Your task to perform on an android device: Search for bose soundlink mini on target.com, select the first entry, add it to the cart, then select checkout. Image 0: 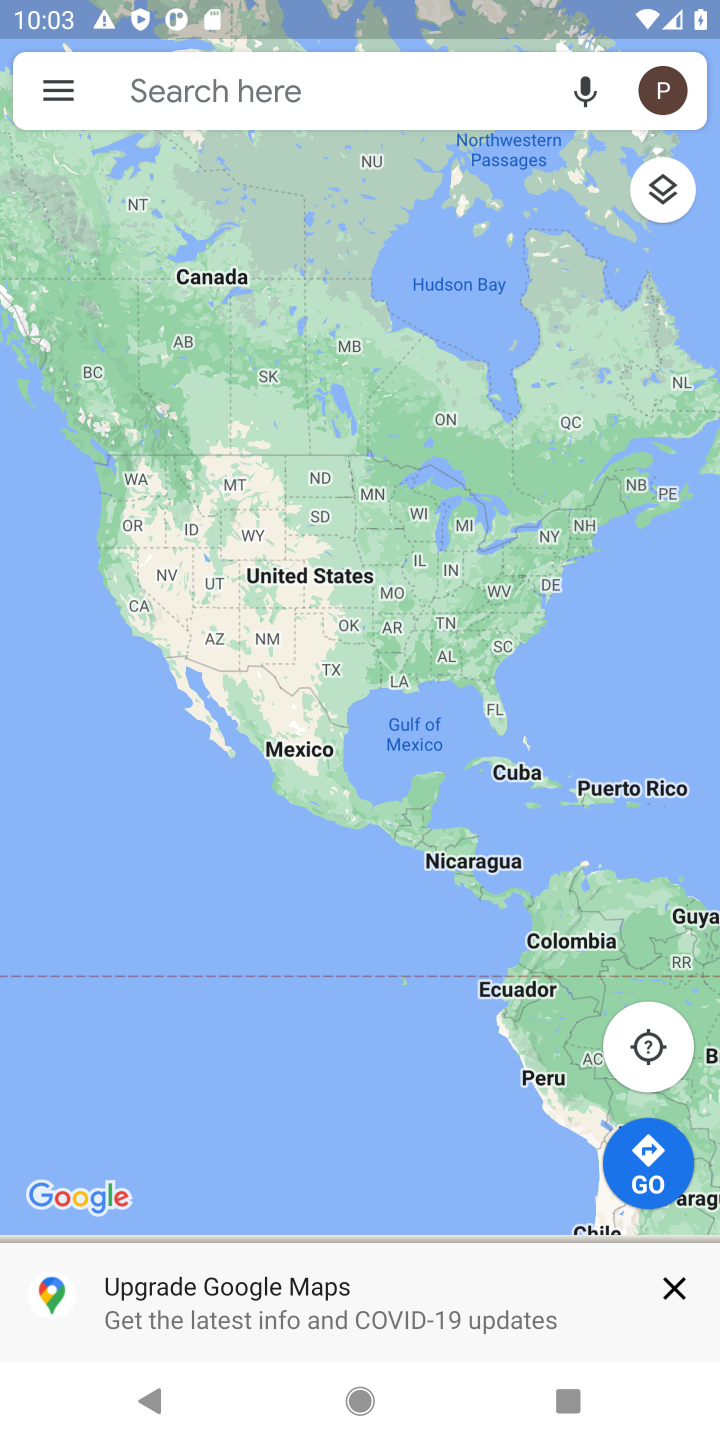
Step 0: press home button
Your task to perform on an android device: Search for bose soundlink mini on target.com, select the first entry, add it to the cart, then select checkout. Image 1: 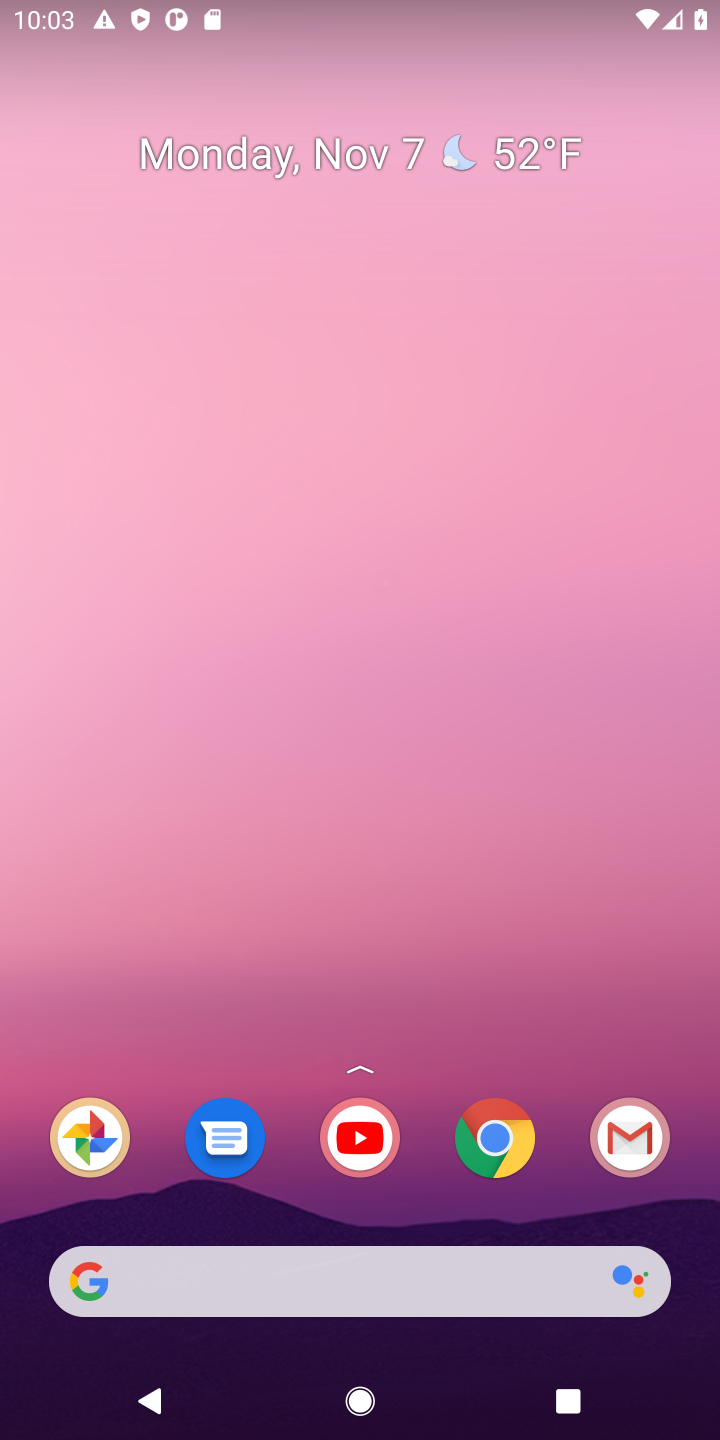
Step 1: drag from (413, 1206) to (443, 143)
Your task to perform on an android device: Search for bose soundlink mini on target.com, select the first entry, add it to the cart, then select checkout. Image 2: 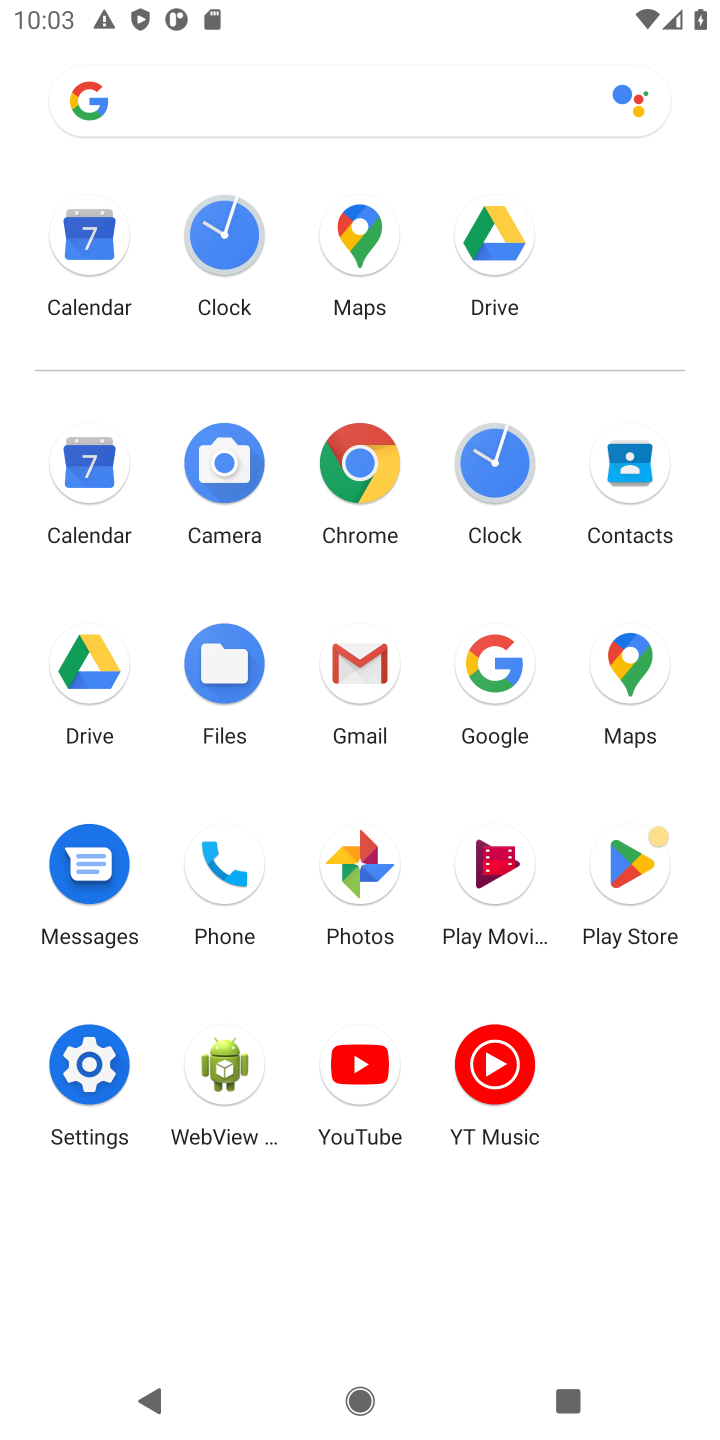
Step 2: click (345, 466)
Your task to perform on an android device: Search for bose soundlink mini on target.com, select the first entry, add it to the cart, then select checkout. Image 3: 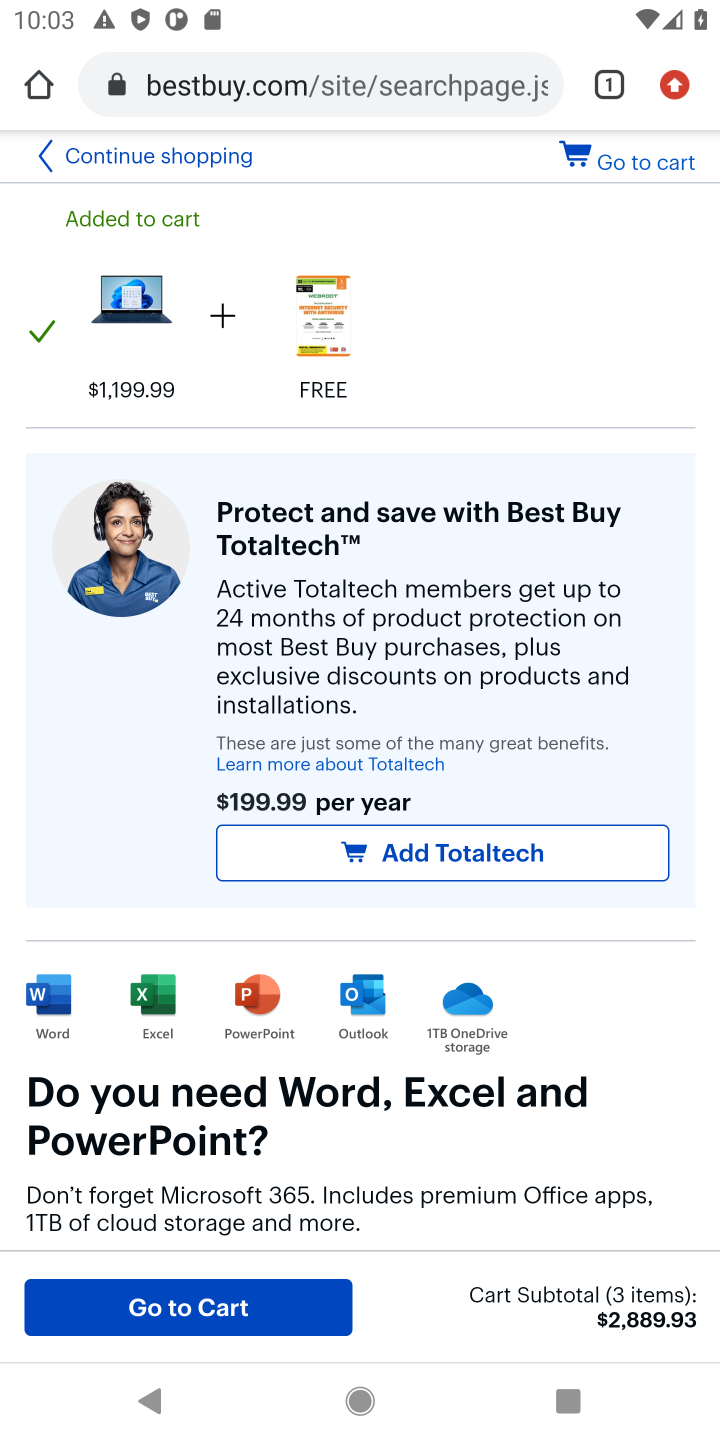
Step 3: click (347, 76)
Your task to perform on an android device: Search for bose soundlink mini on target.com, select the first entry, add it to the cart, then select checkout. Image 4: 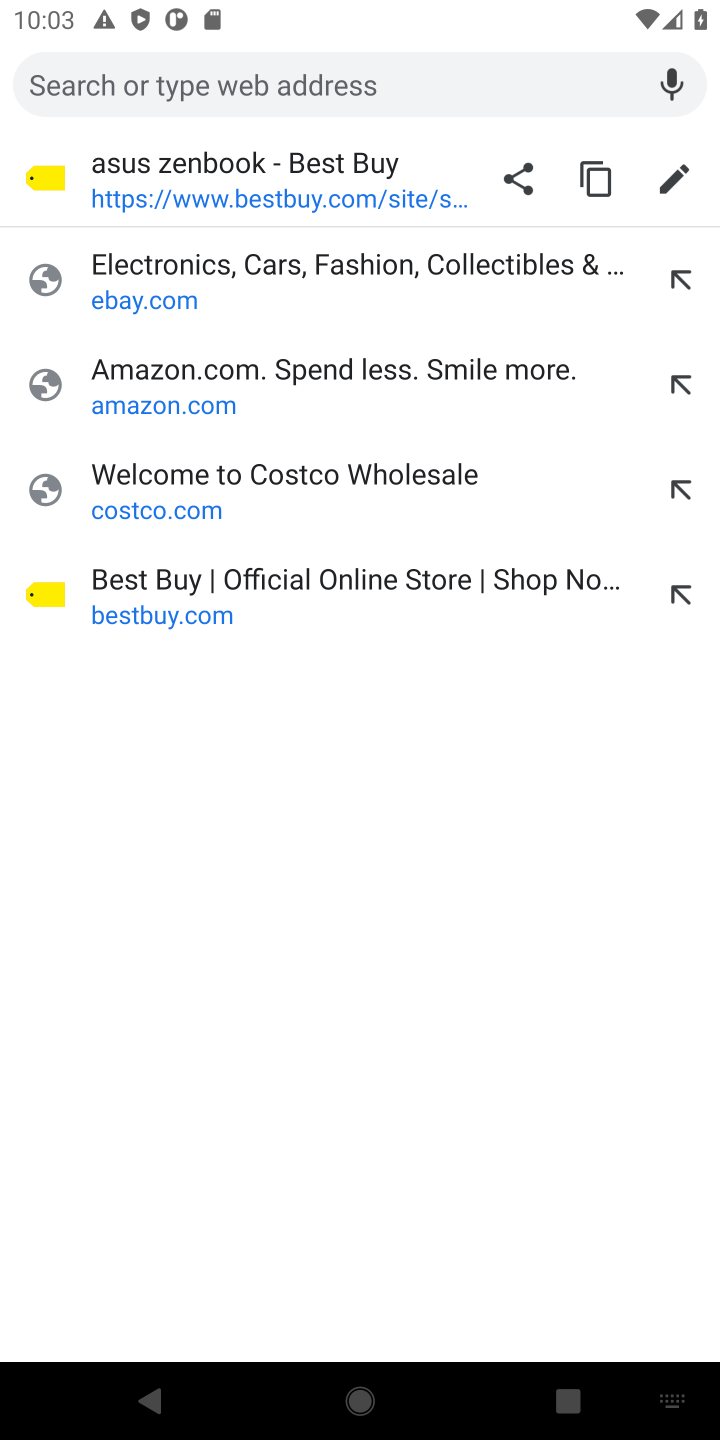
Step 4: type "target.com"
Your task to perform on an android device: Search for bose soundlink mini on target.com, select the first entry, add it to the cart, then select checkout. Image 5: 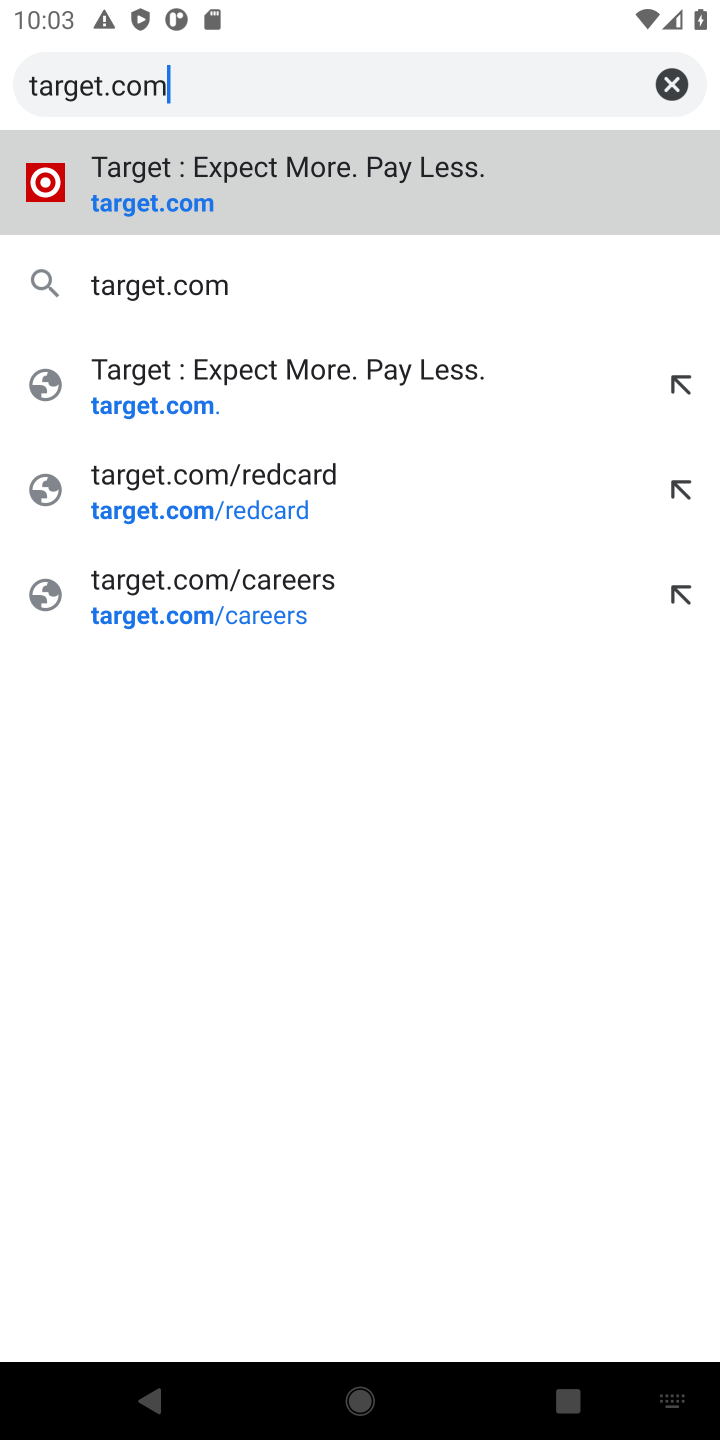
Step 5: press enter
Your task to perform on an android device: Search for bose soundlink mini on target.com, select the first entry, add it to the cart, then select checkout. Image 6: 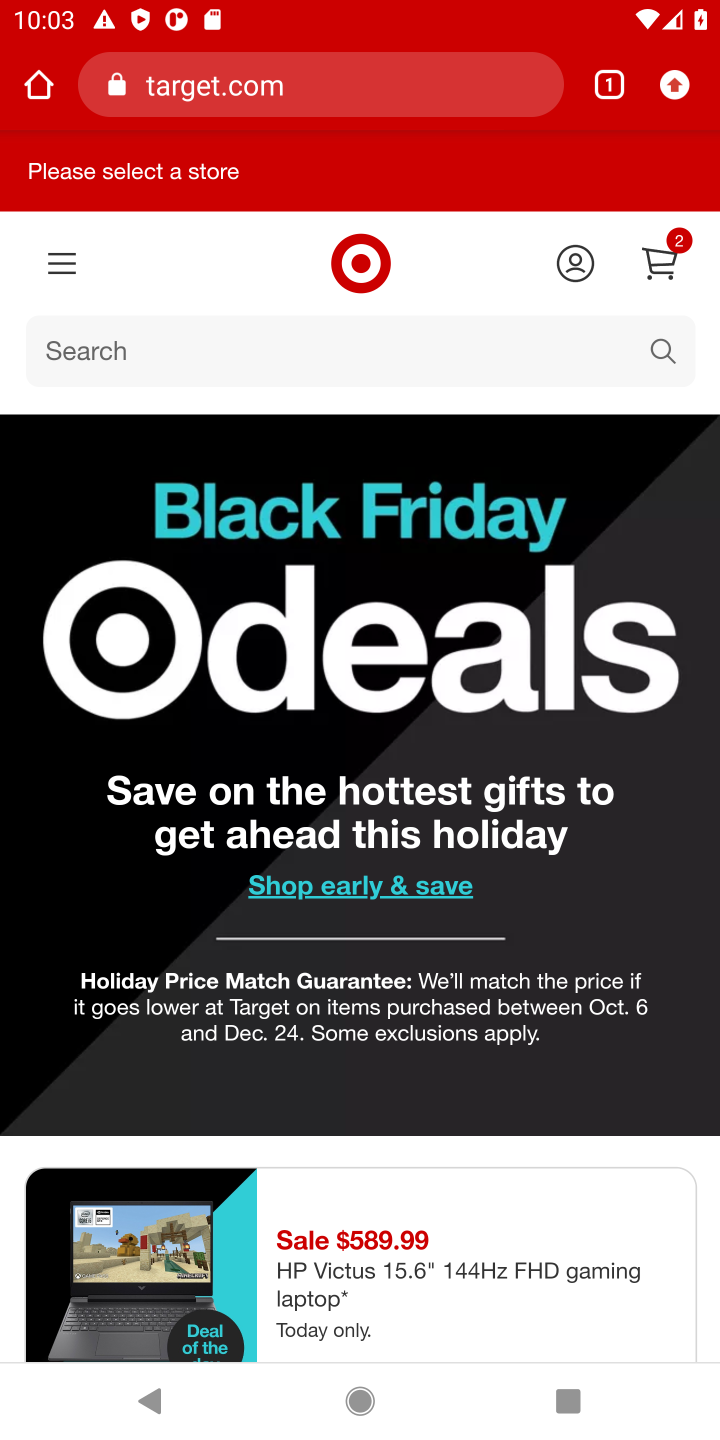
Step 6: click (202, 364)
Your task to perform on an android device: Search for bose soundlink mini on target.com, select the first entry, add it to the cart, then select checkout. Image 7: 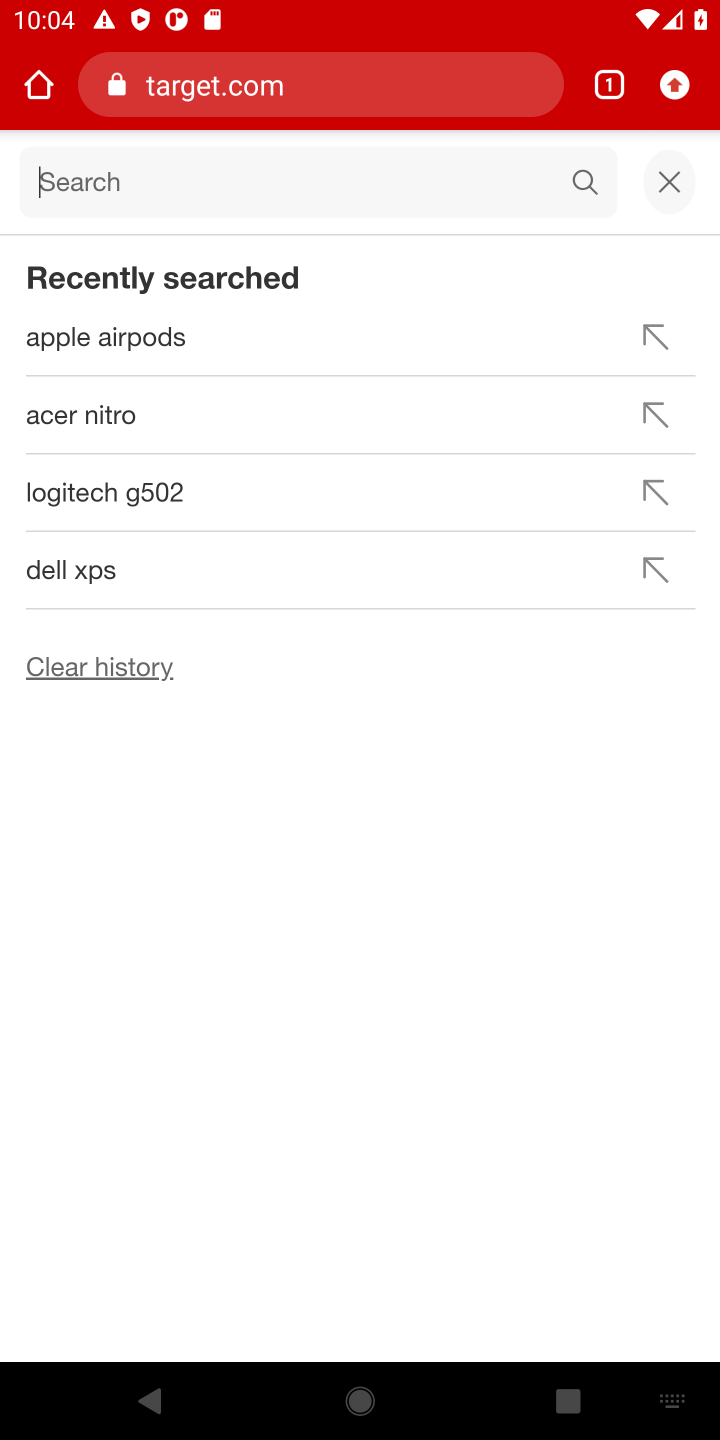
Step 7: type "bose soundlink mini"
Your task to perform on an android device: Search for bose soundlink mini on target.com, select the first entry, add it to the cart, then select checkout. Image 8: 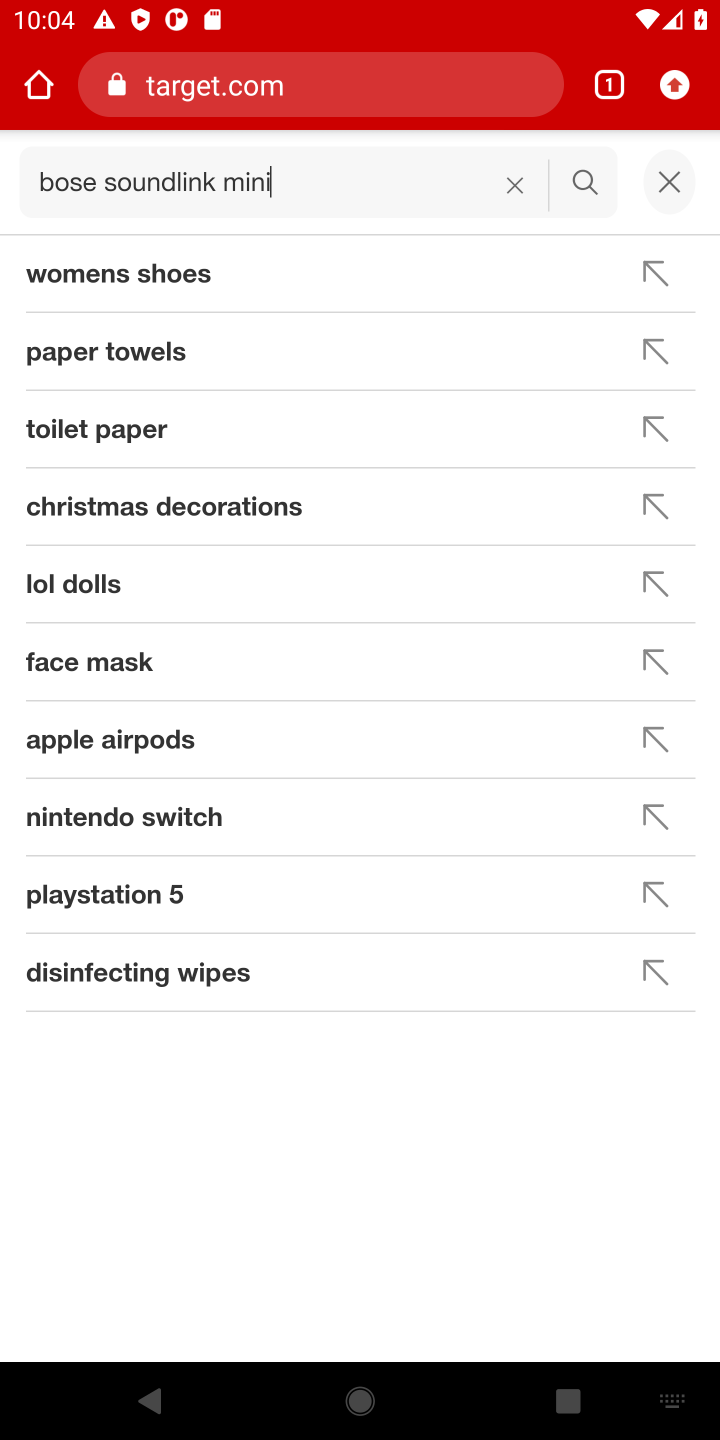
Step 8: press enter
Your task to perform on an android device: Search for bose soundlink mini on target.com, select the first entry, add it to the cart, then select checkout. Image 9: 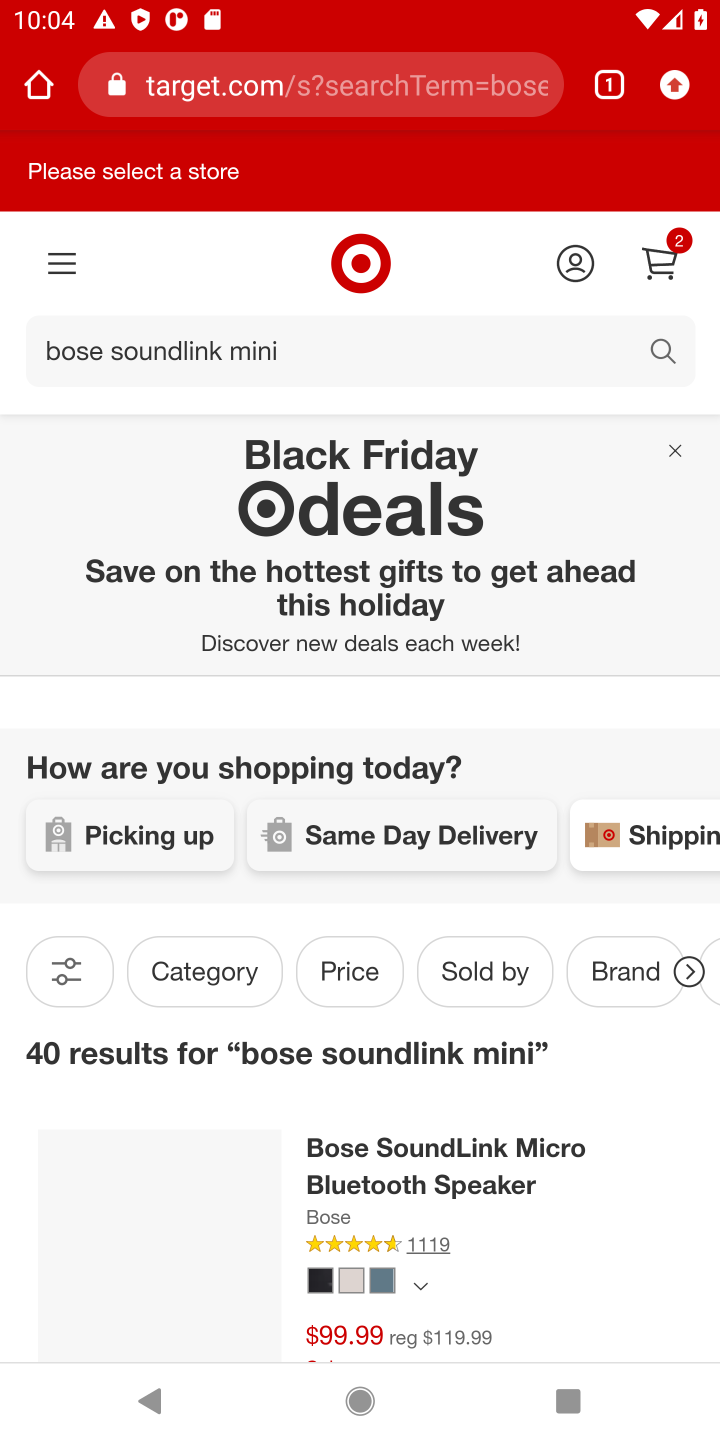
Step 9: task complete